Your task to perform on an android device: change notifications settings Image 0: 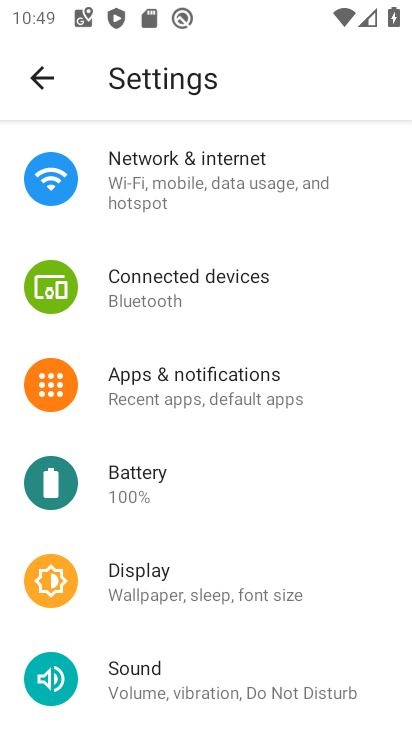
Step 0: press home button
Your task to perform on an android device: change notifications settings Image 1: 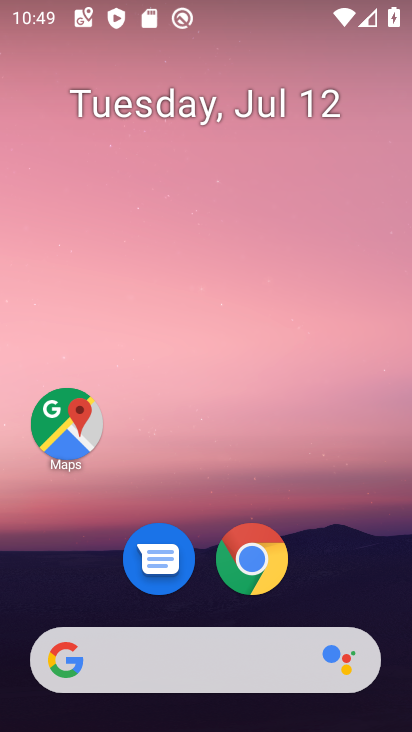
Step 1: drag from (259, 657) to (308, 237)
Your task to perform on an android device: change notifications settings Image 2: 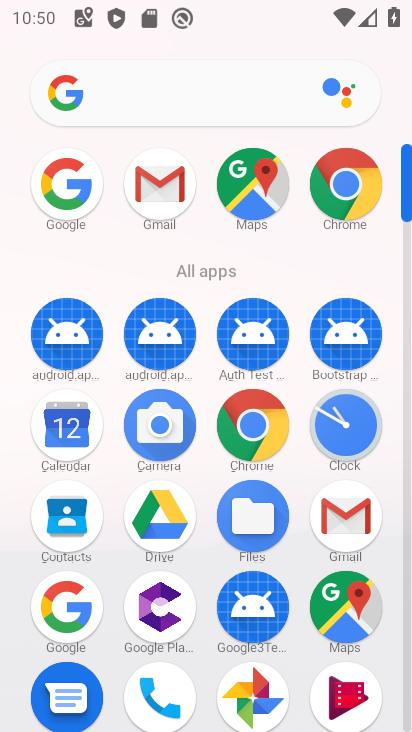
Step 2: drag from (272, 556) to (278, 176)
Your task to perform on an android device: change notifications settings Image 3: 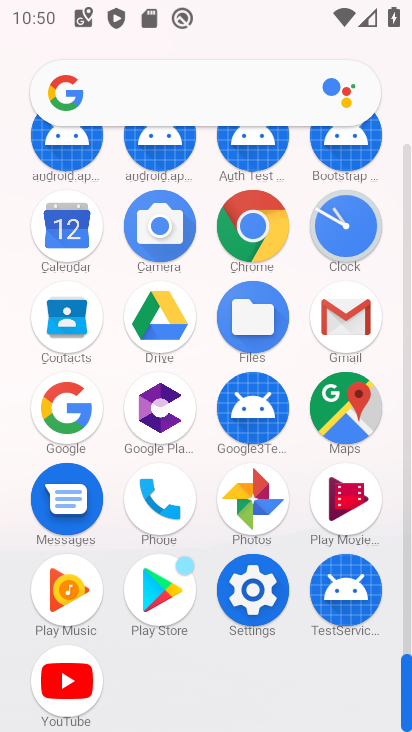
Step 3: click (266, 594)
Your task to perform on an android device: change notifications settings Image 4: 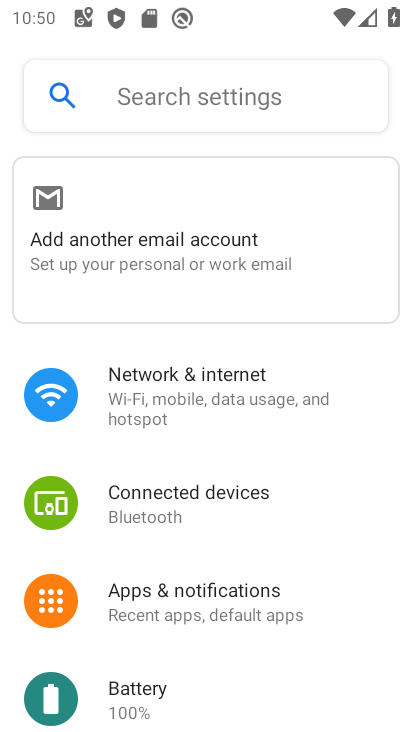
Step 4: drag from (259, 597) to (251, 376)
Your task to perform on an android device: change notifications settings Image 5: 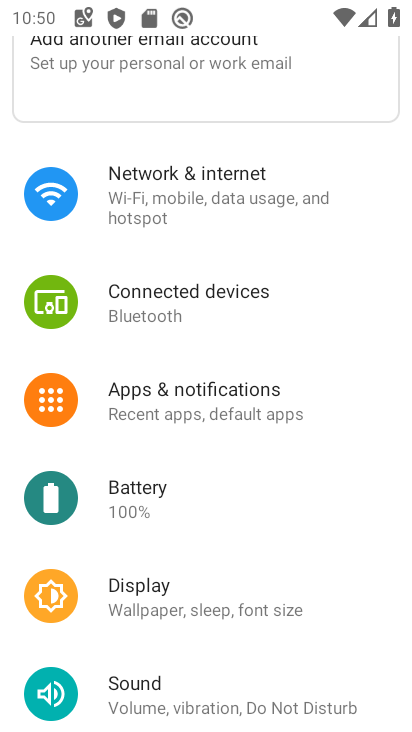
Step 5: click (216, 402)
Your task to perform on an android device: change notifications settings Image 6: 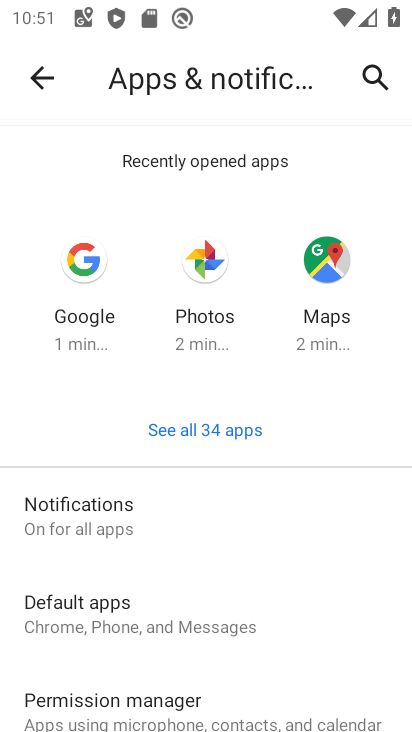
Step 6: drag from (177, 604) to (179, 502)
Your task to perform on an android device: change notifications settings Image 7: 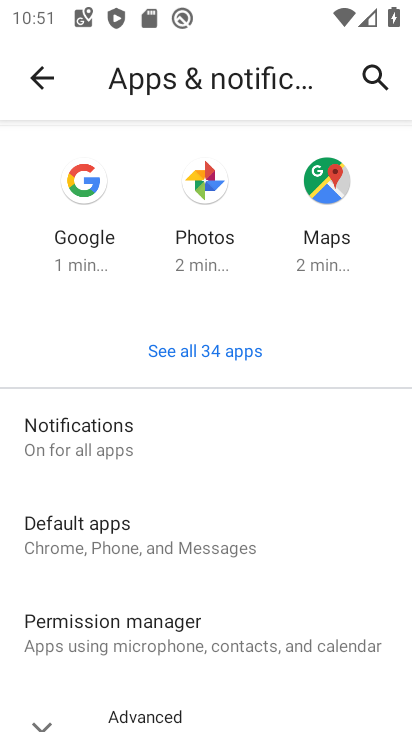
Step 7: click (176, 446)
Your task to perform on an android device: change notifications settings Image 8: 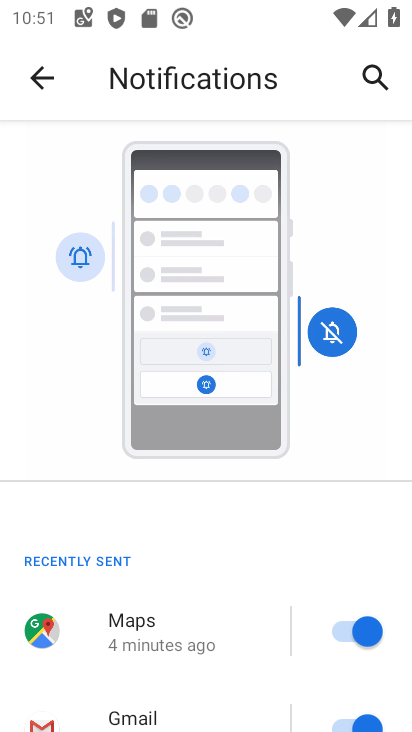
Step 8: click (326, 634)
Your task to perform on an android device: change notifications settings Image 9: 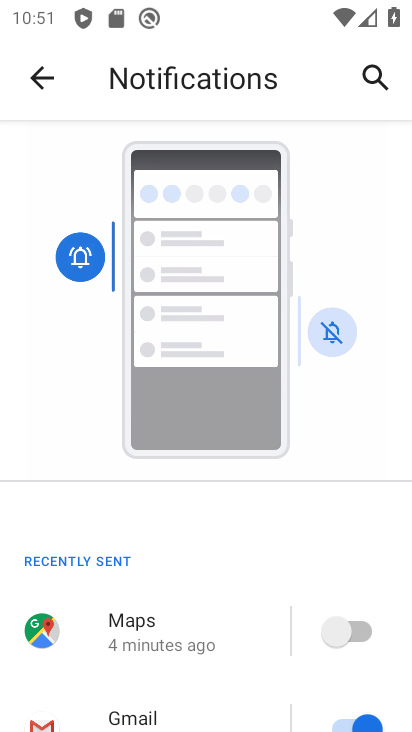
Step 9: task complete